Your task to perform on an android device: allow notifications from all sites in the chrome app Image 0: 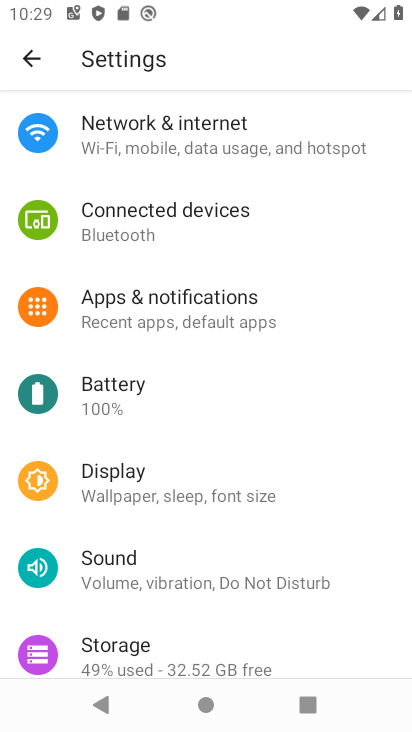
Step 0: click (238, 316)
Your task to perform on an android device: allow notifications from all sites in the chrome app Image 1: 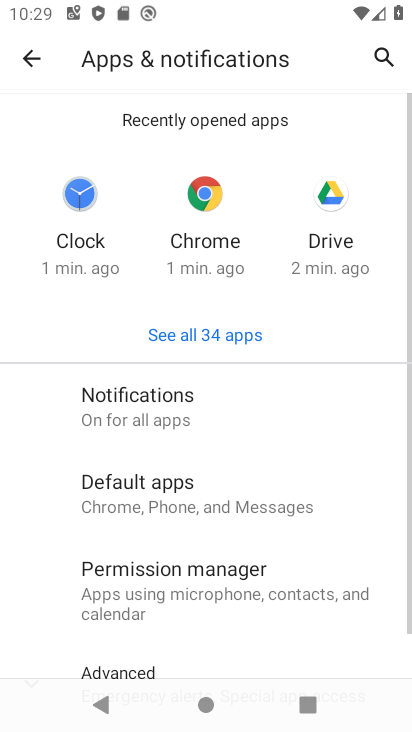
Step 1: click (202, 201)
Your task to perform on an android device: allow notifications from all sites in the chrome app Image 2: 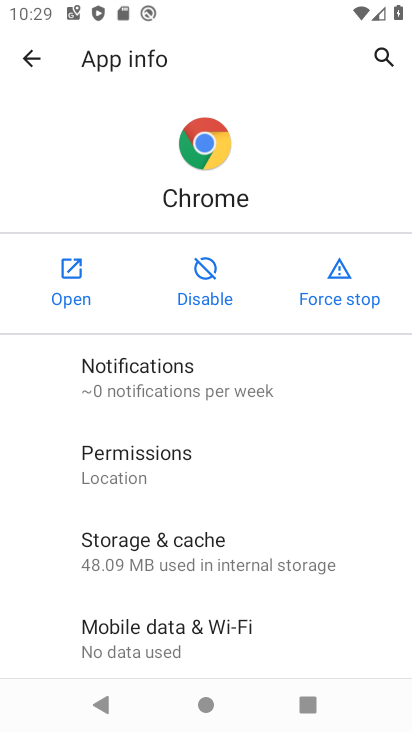
Step 2: click (297, 369)
Your task to perform on an android device: allow notifications from all sites in the chrome app Image 3: 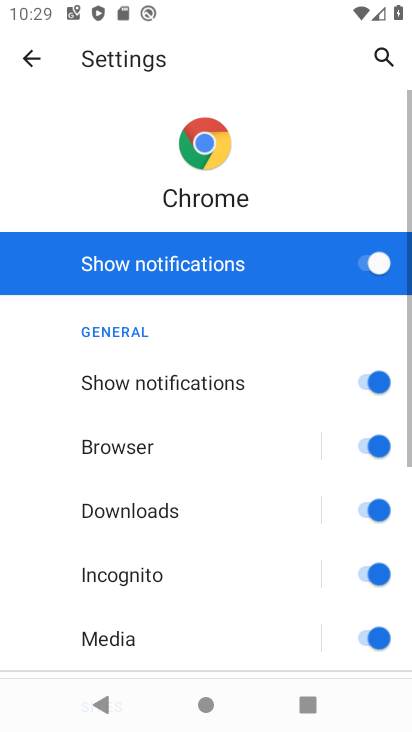
Step 3: task complete